Your task to perform on an android device: Turn on the flashlight Image 0: 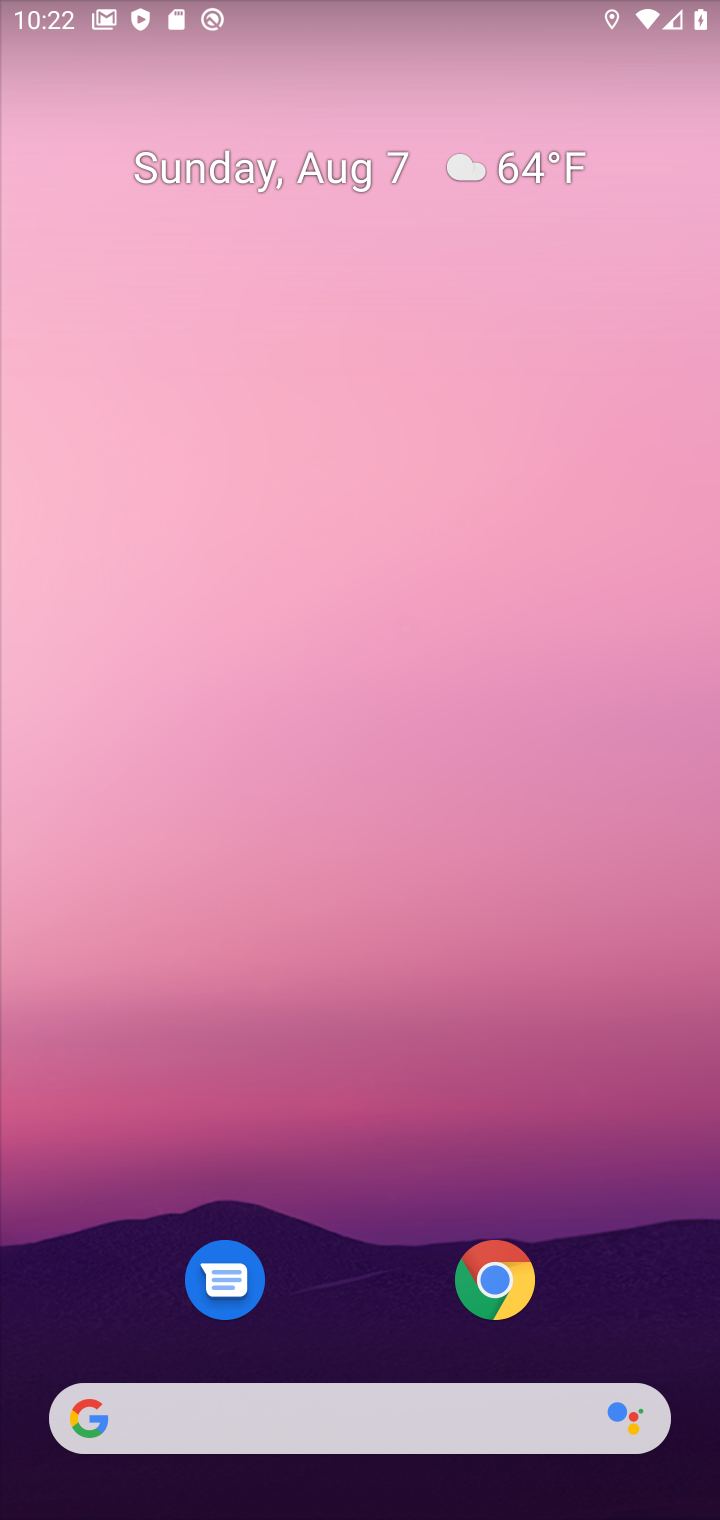
Step 0: press back button
Your task to perform on an android device: Turn on the flashlight Image 1: 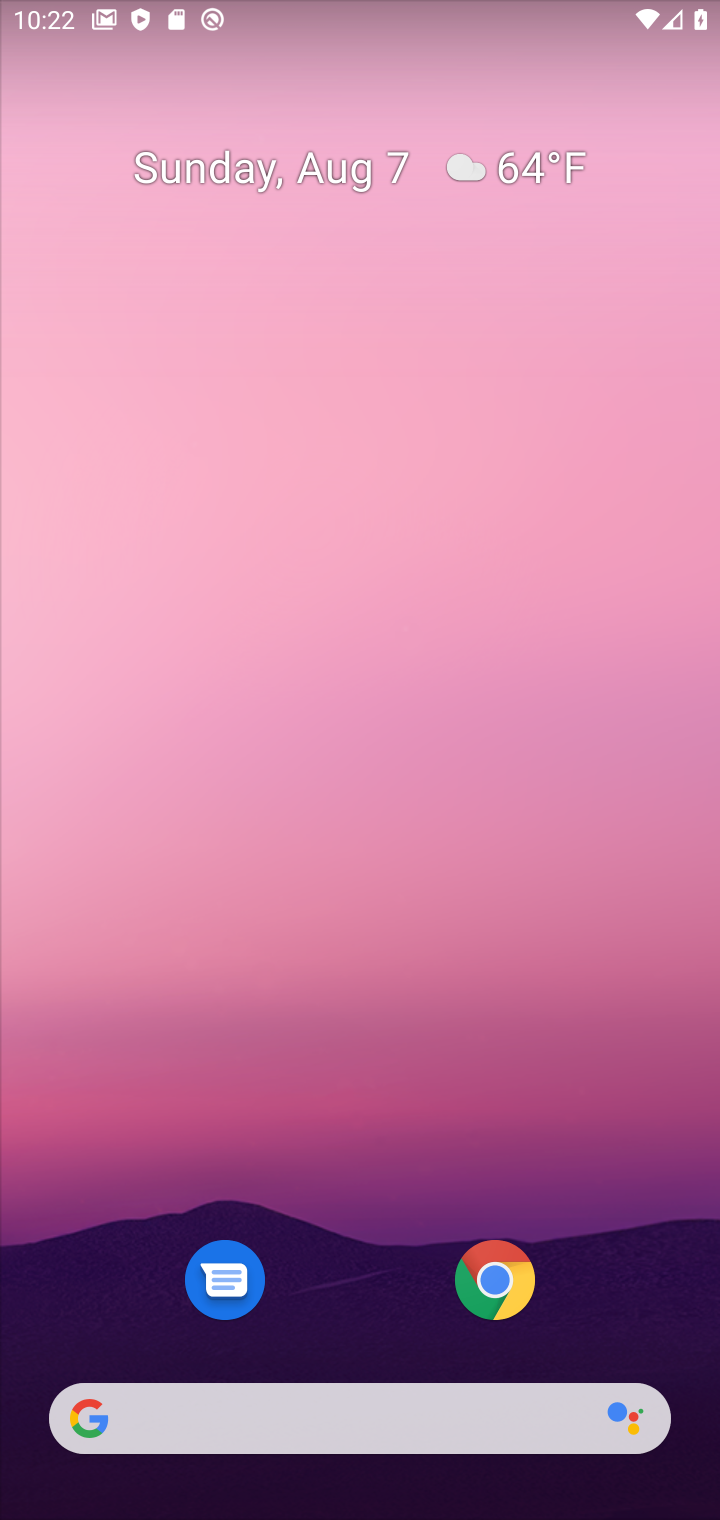
Step 1: drag from (384, 1270) to (532, 71)
Your task to perform on an android device: Turn on the flashlight Image 2: 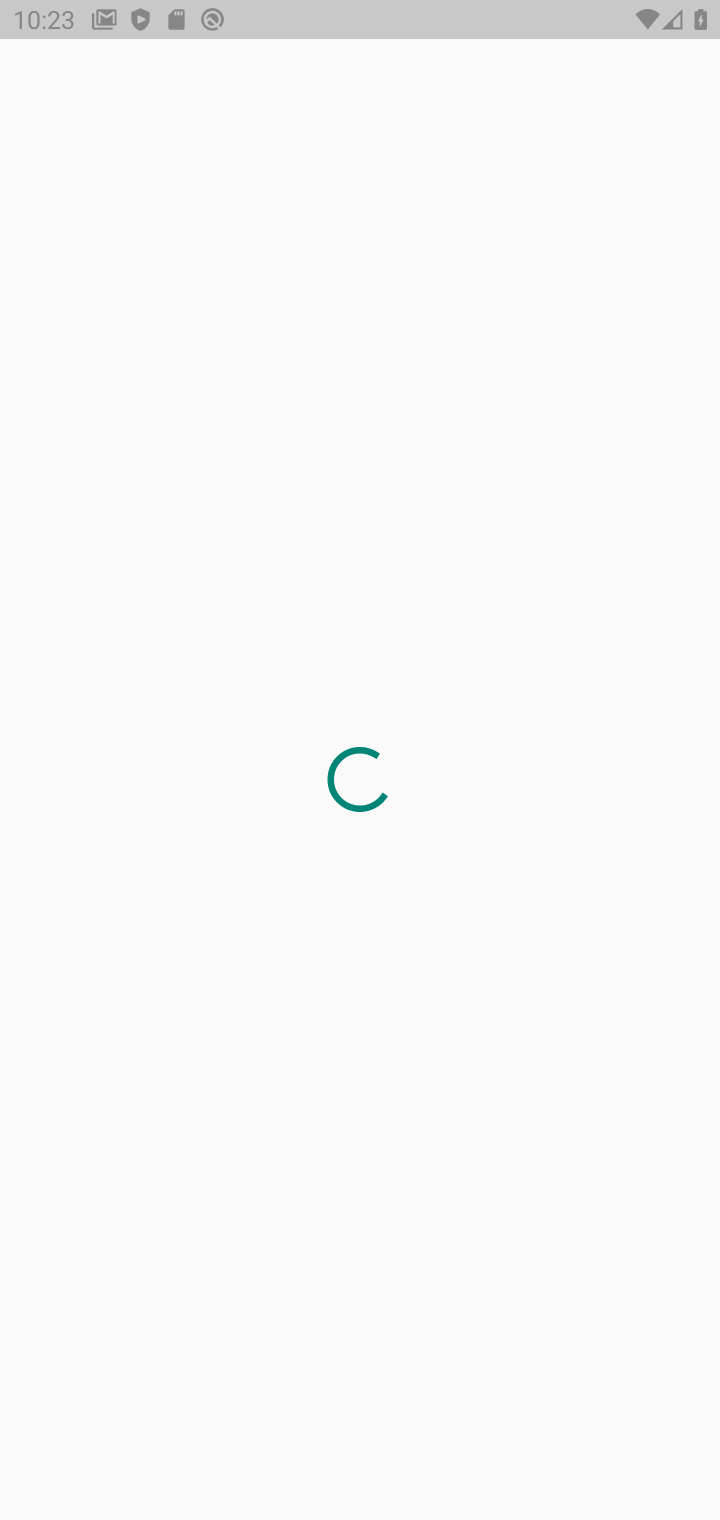
Step 2: click (383, 257)
Your task to perform on an android device: Turn on the flashlight Image 3: 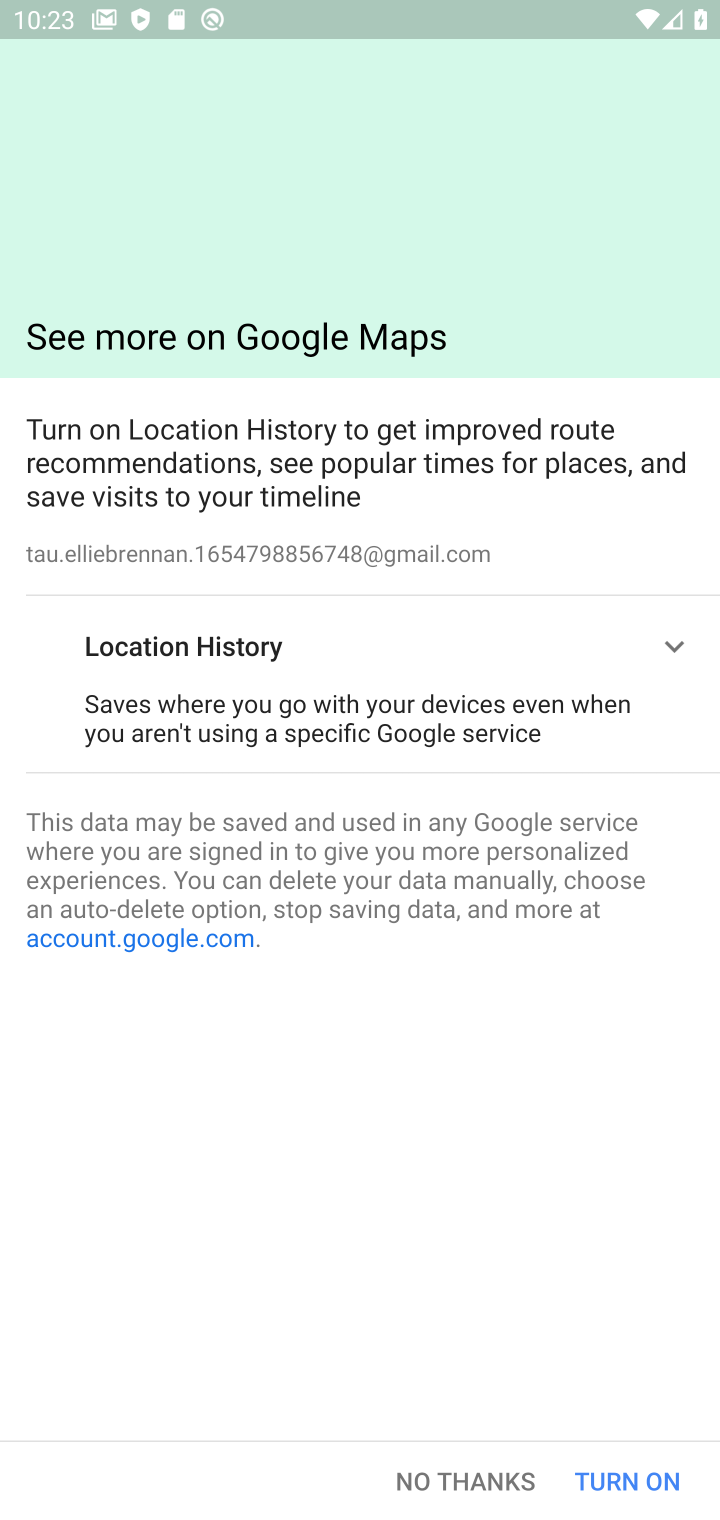
Step 3: press back button
Your task to perform on an android device: Turn on the flashlight Image 4: 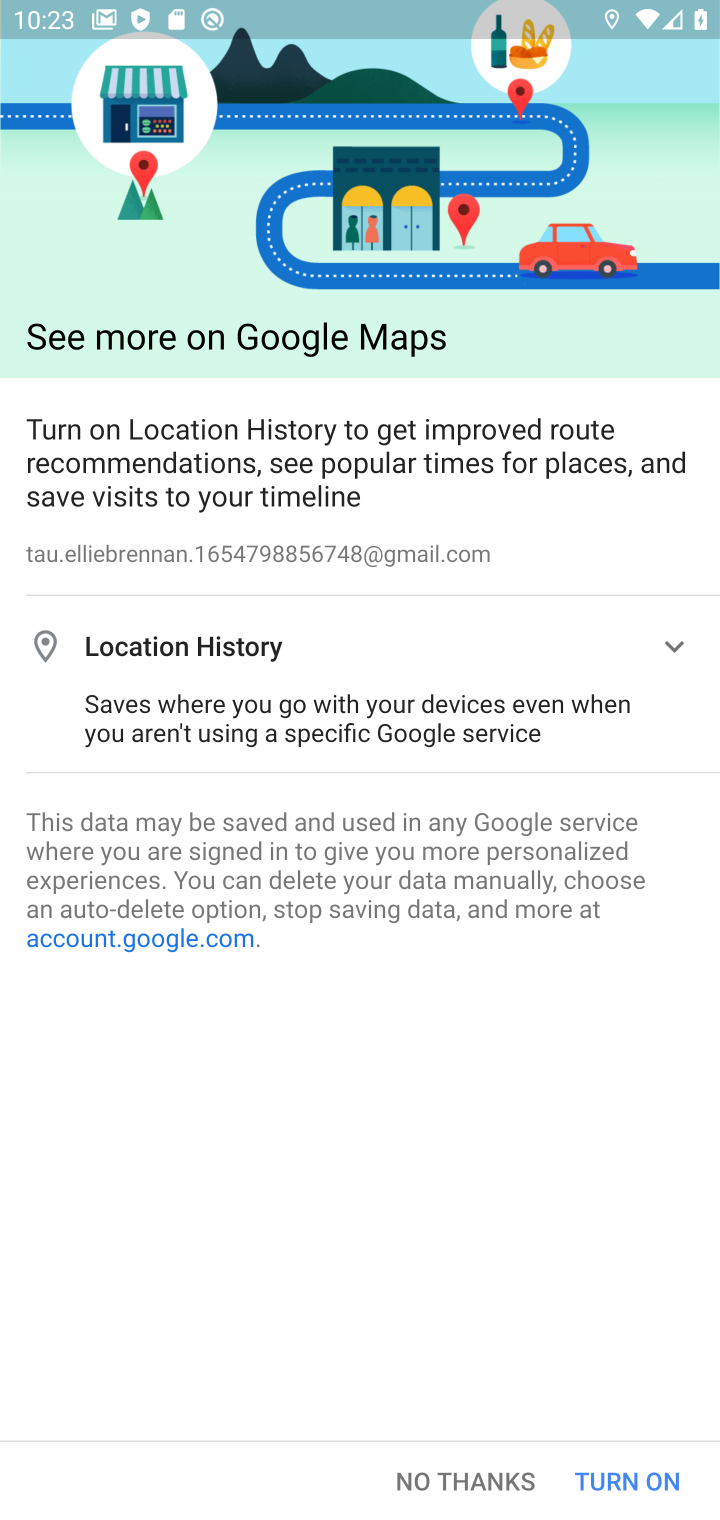
Step 4: press back button
Your task to perform on an android device: Turn on the flashlight Image 5: 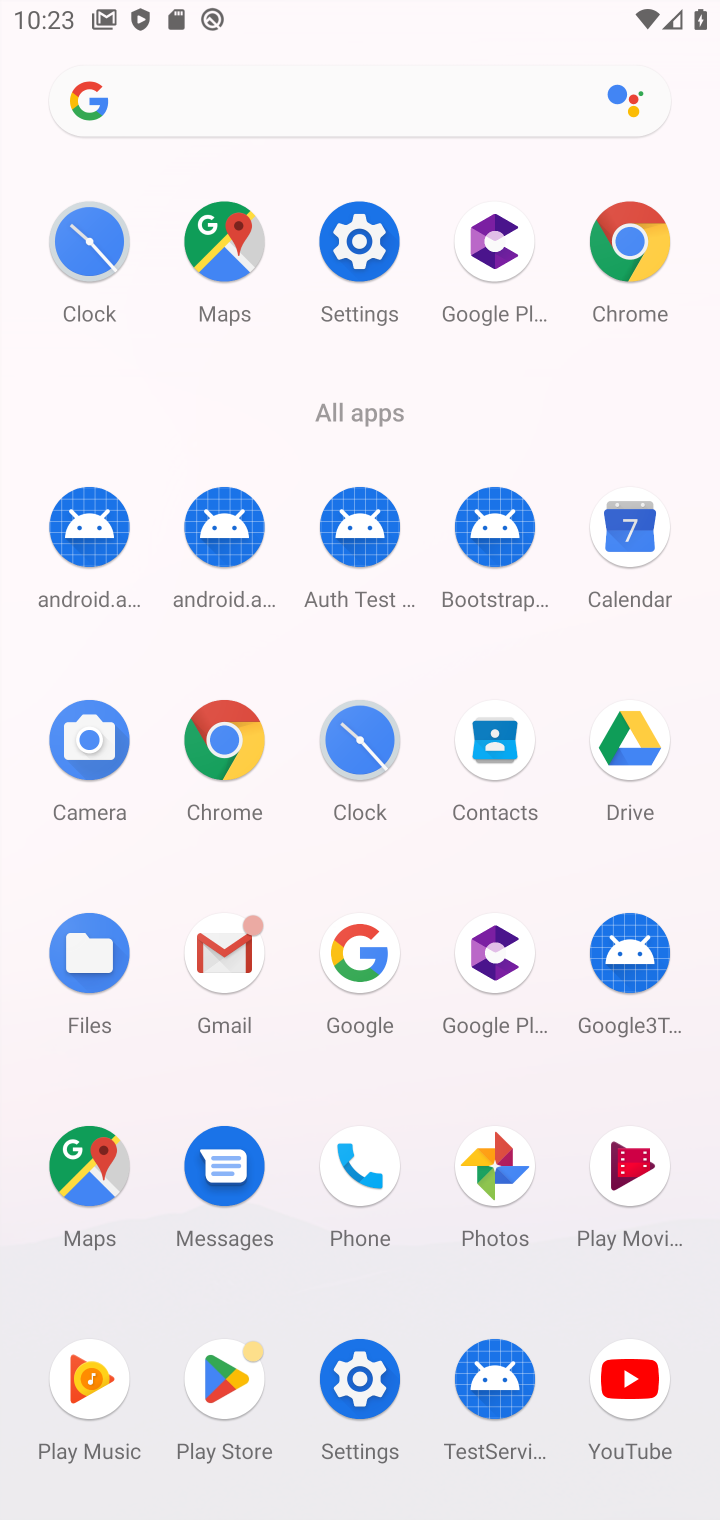
Step 5: click (348, 236)
Your task to perform on an android device: Turn on the flashlight Image 6: 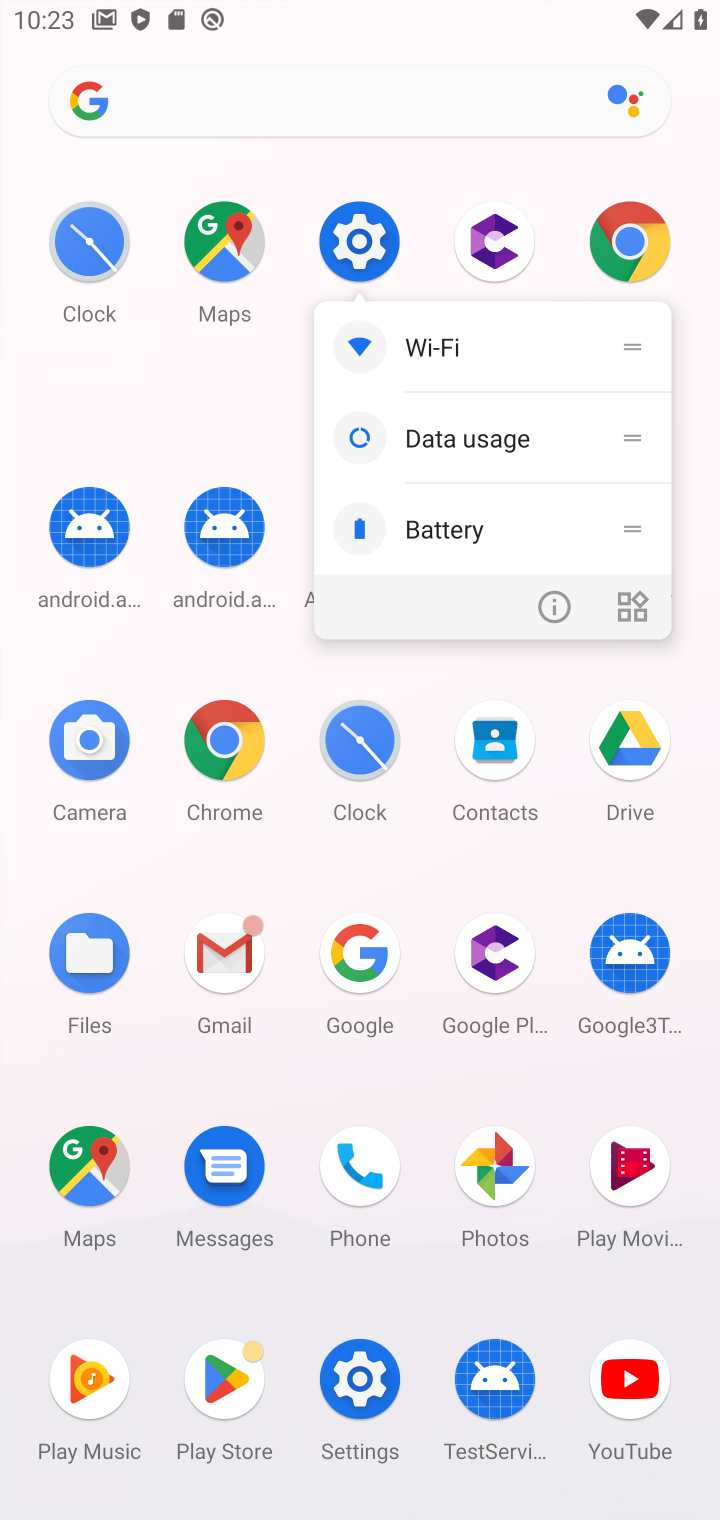
Step 6: click (360, 228)
Your task to perform on an android device: Turn on the flashlight Image 7: 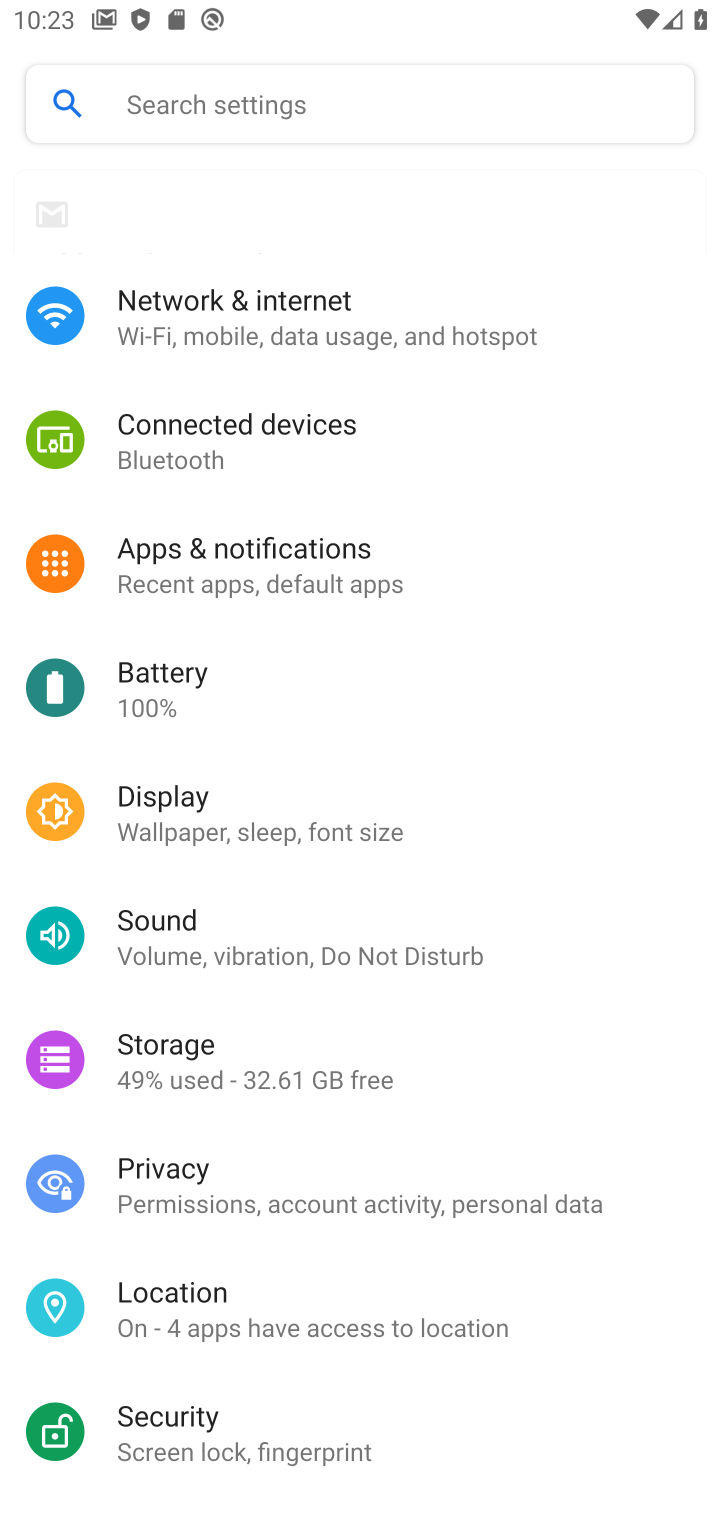
Step 7: click (250, 103)
Your task to perform on an android device: Turn on the flashlight Image 8: 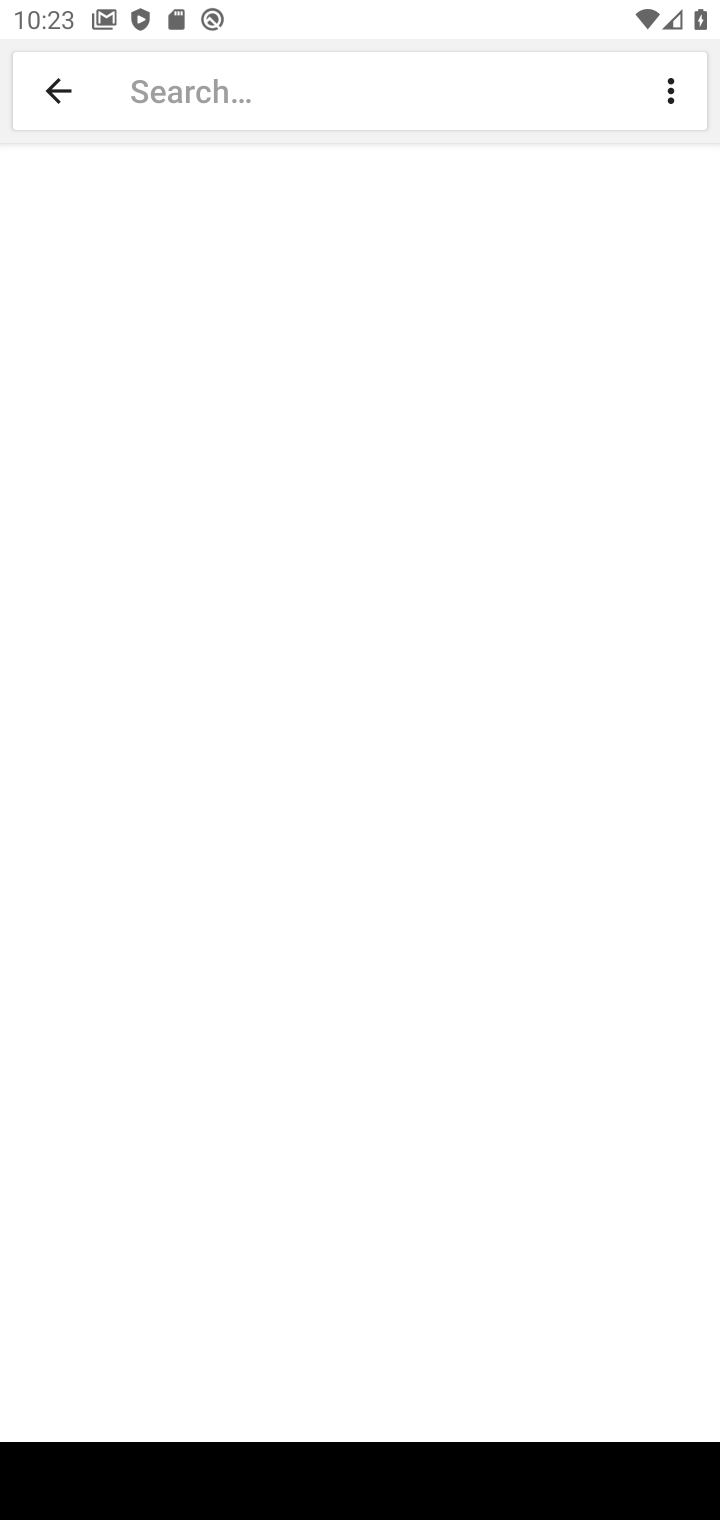
Step 8: type "flashlight"
Your task to perform on an android device: Turn on the flashlight Image 9: 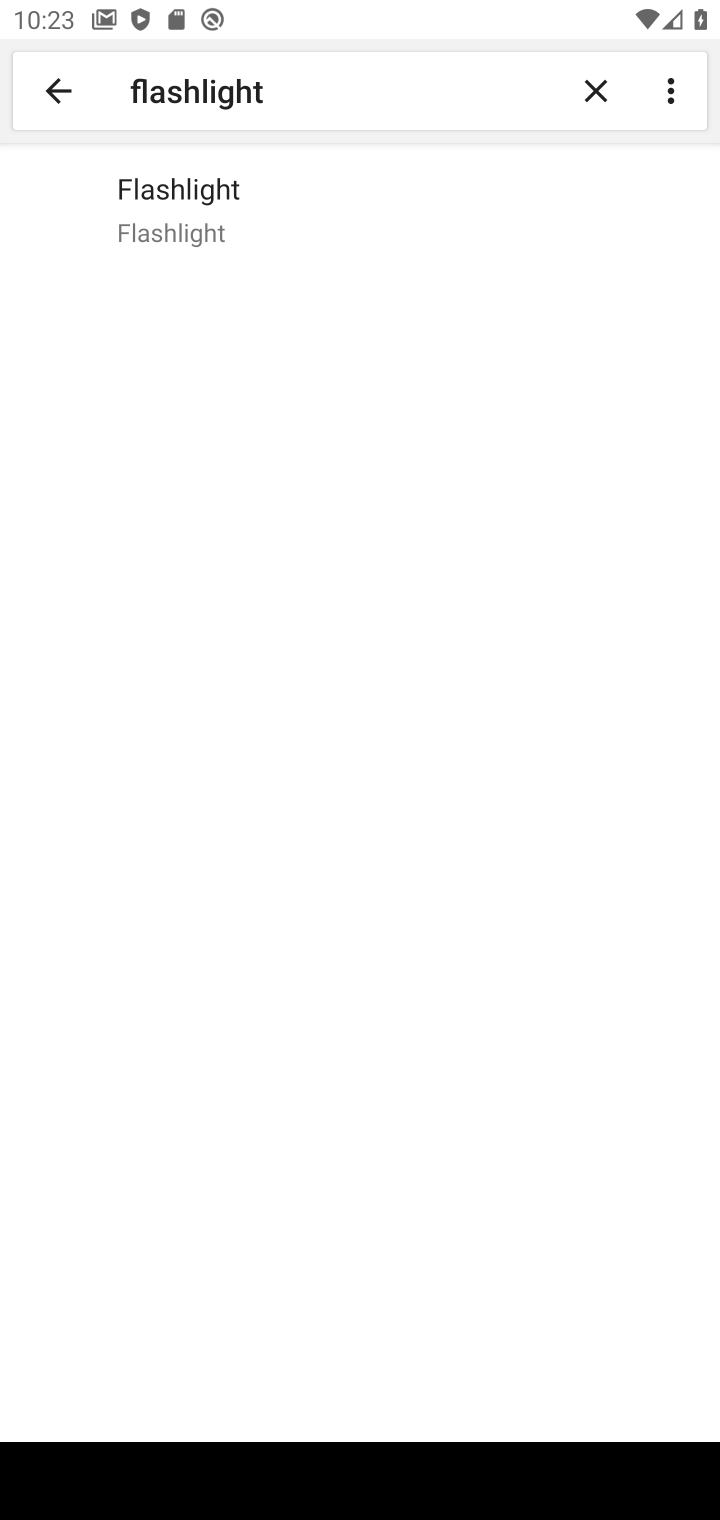
Step 9: click (225, 204)
Your task to perform on an android device: Turn on the flashlight Image 10: 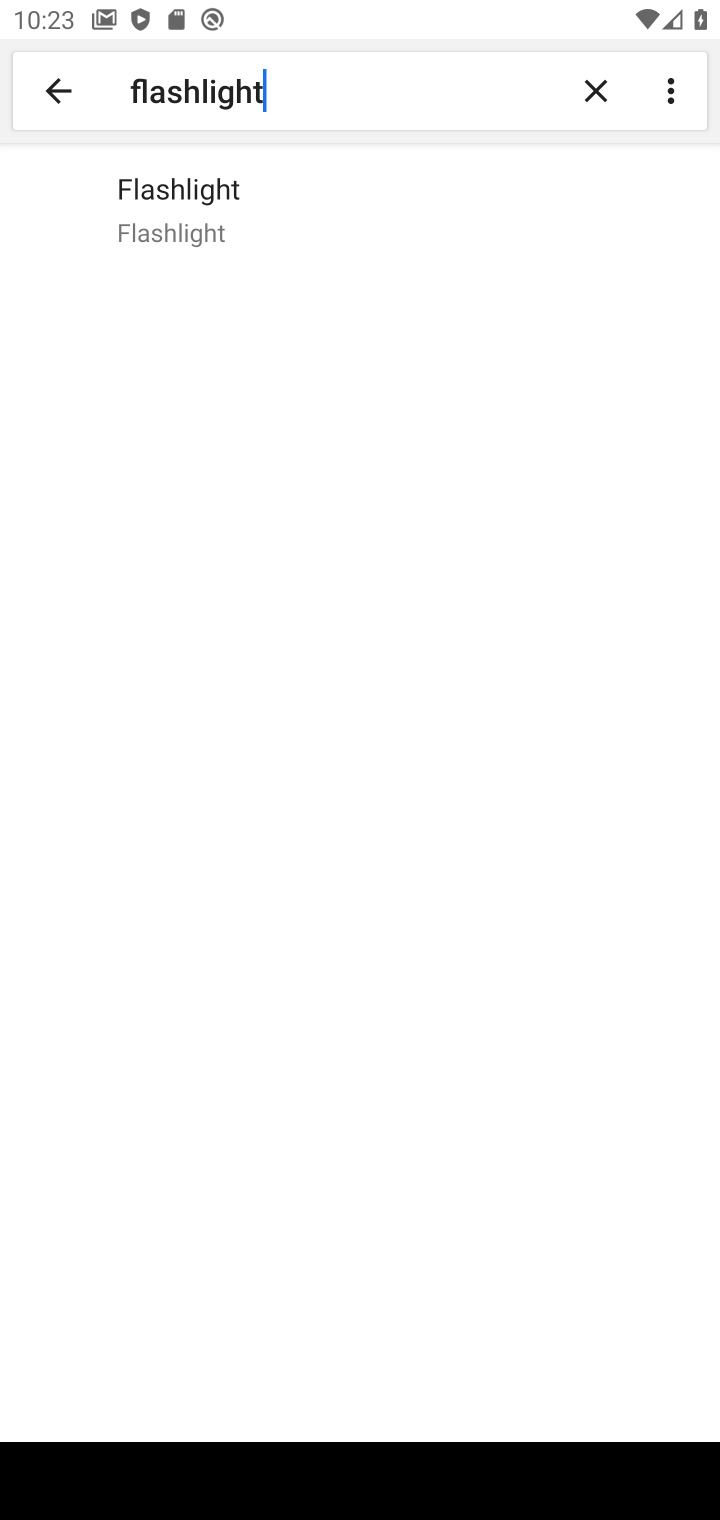
Step 10: click (225, 204)
Your task to perform on an android device: Turn on the flashlight Image 11: 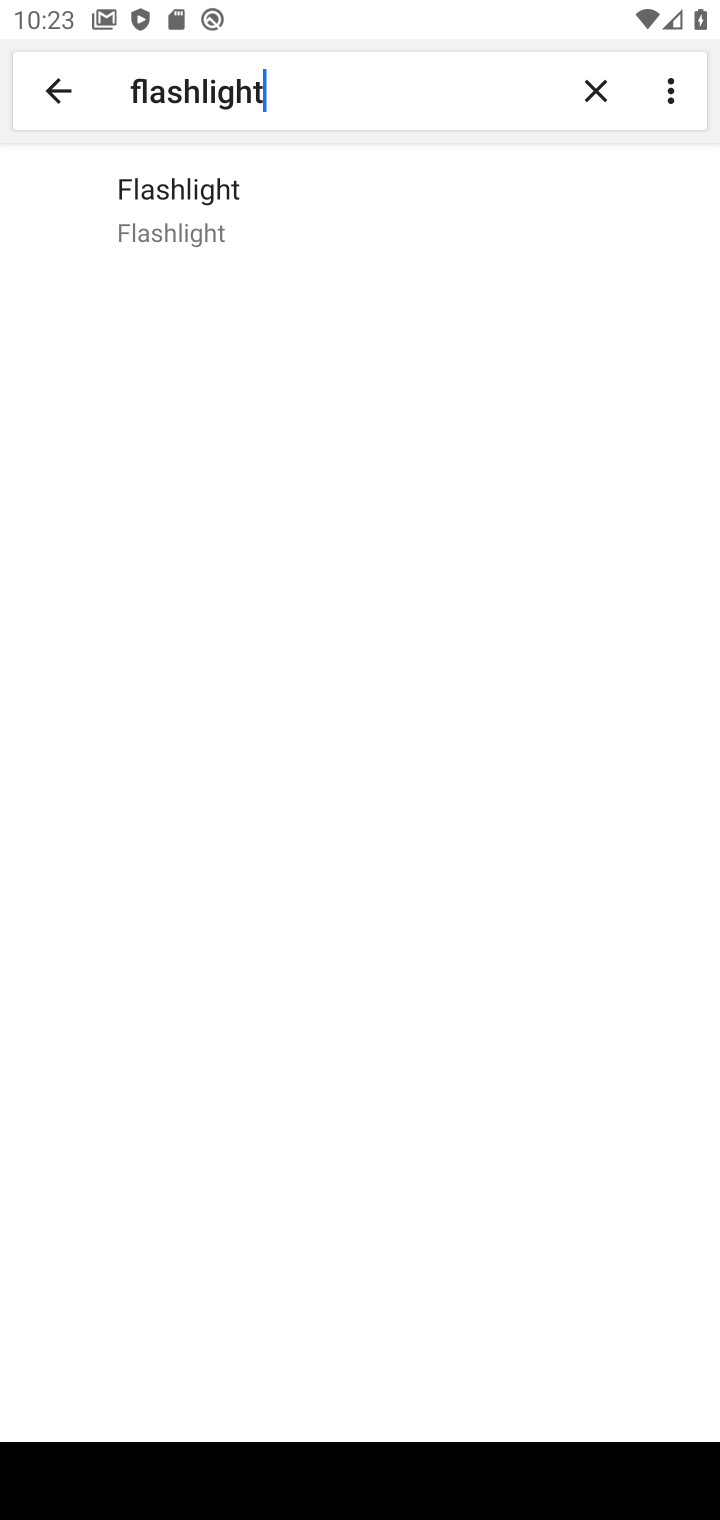
Step 11: click (254, 182)
Your task to perform on an android device: Turn on the flashlight Image 12: 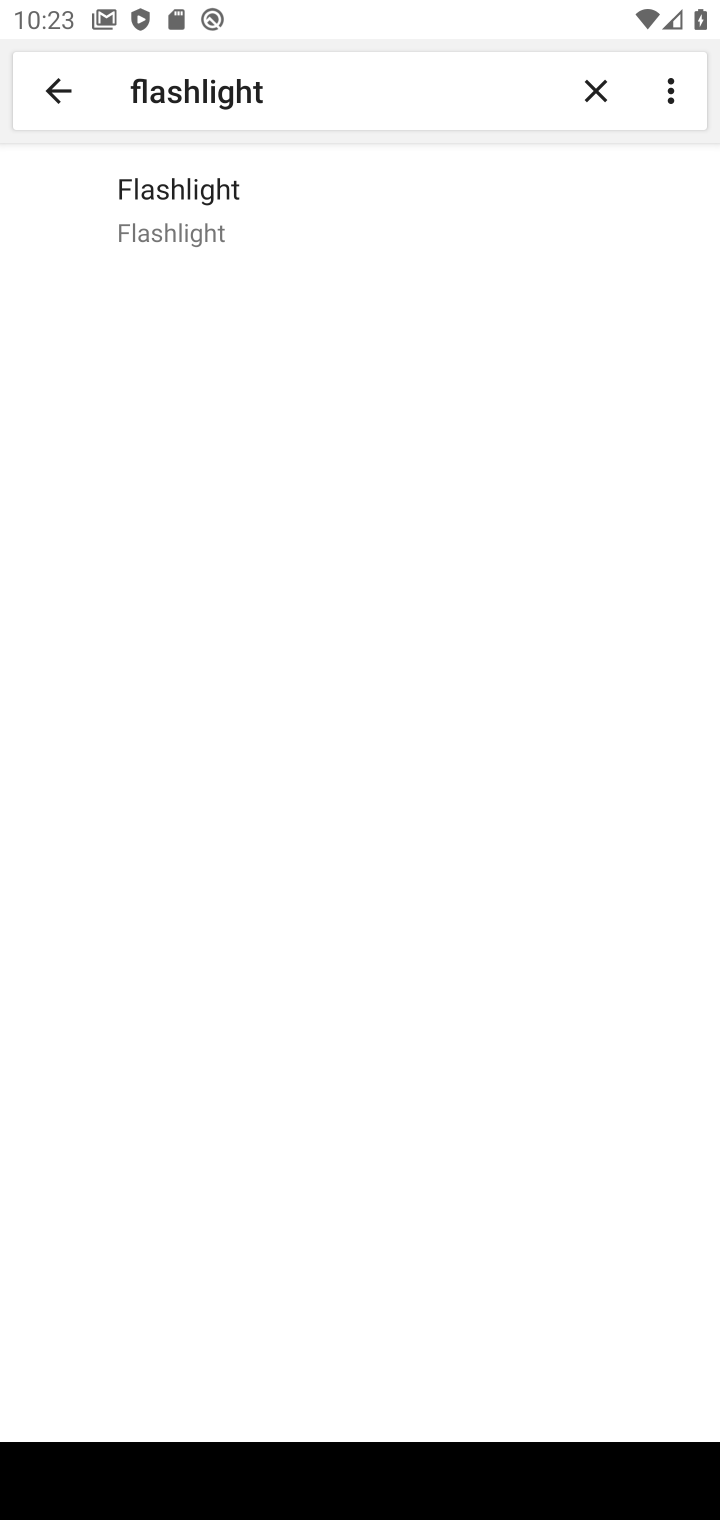
Step 12: task complete